Your task to perform on an android device: toggle location history Image 0: 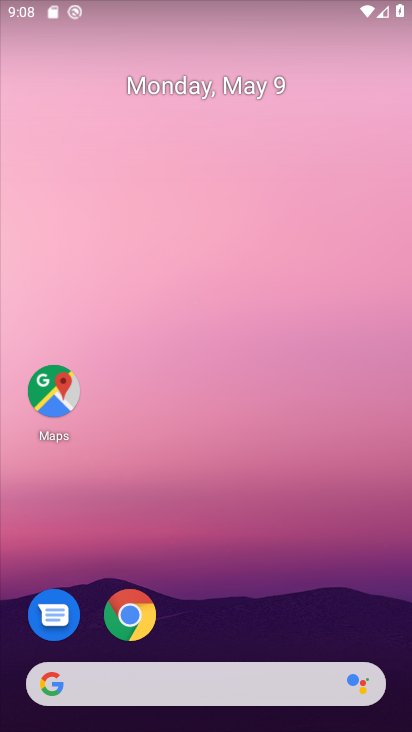
Step 0: drag from (312, 704) to (261, 225)
Your task to perform on an android device: toggle location history Image 1: 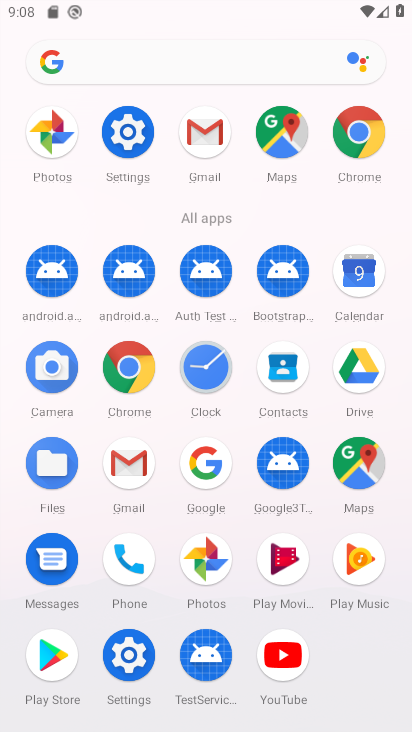
Step 1: click (118, 115)
Your task to perform on an android device: toggle location history Image 2: 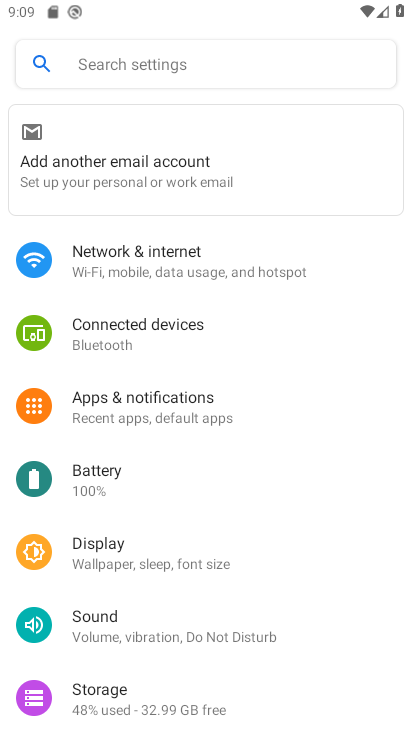
Step 2: click (195, 61)
Your task to perform on an android device: toggle location history Image 3: 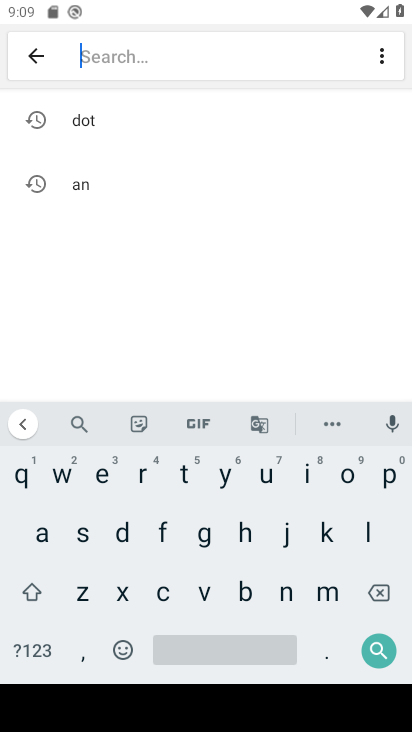
Step 3: click (373, 533)
Your task to perform on an android device: toggle location history Image 4: 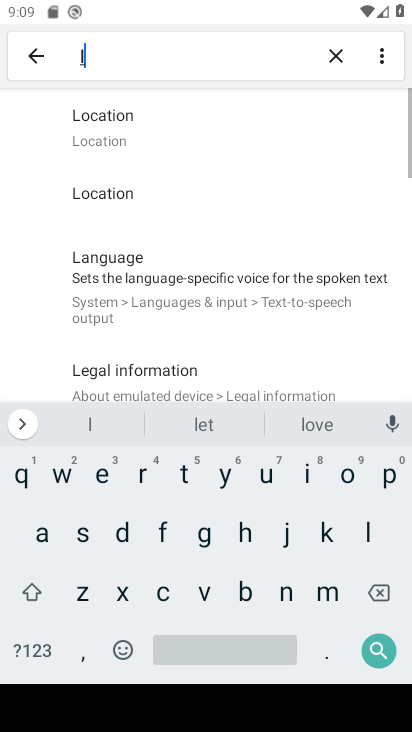
Step 4: click (343, 481)
Your task to perform on an android device: toggle location history Image 5: 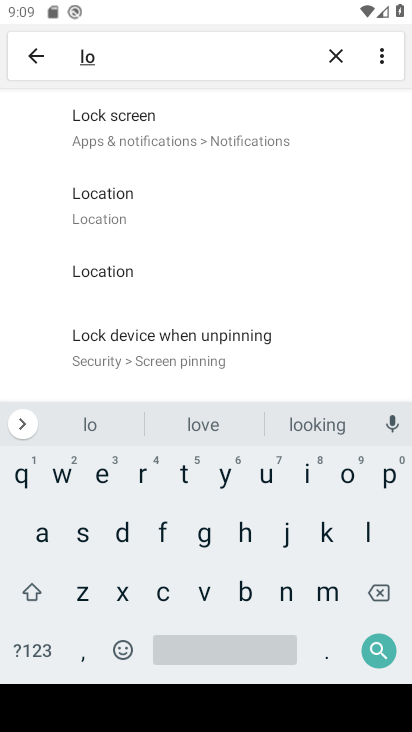
Step 5: click (141, 199)
Your task to perform on an android device: toggle location history Image 6: 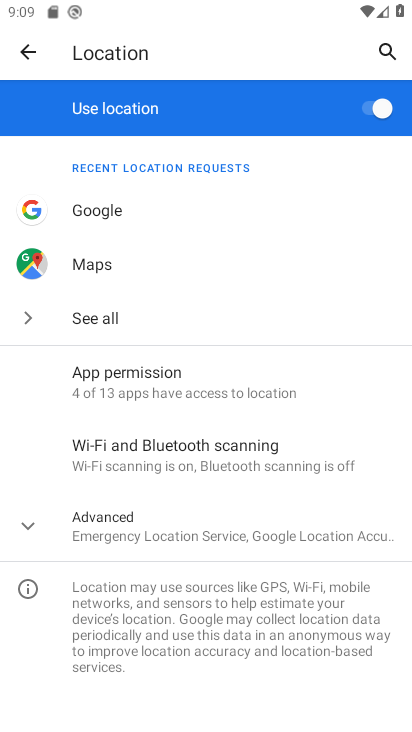
Step 6: click (77, 523)
Your task to perform on an android device: toggle location history Image 7: 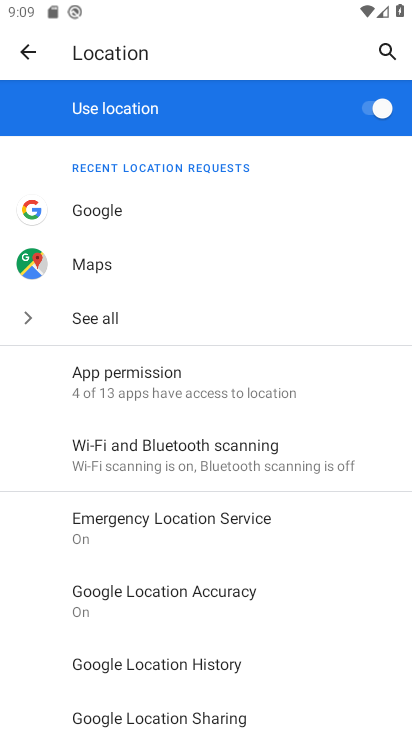
Step 7: click (161, 669)
Your task to perform on an android device: toggle location history Image 8: 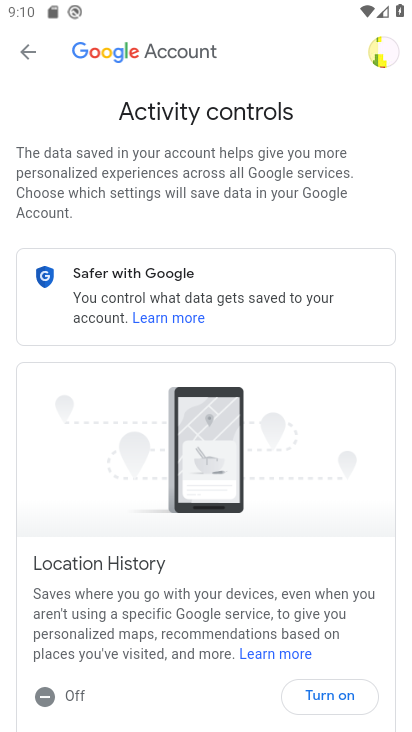
Step 8: task complete